Your task to perform on an android device: allow cookies in the chrome app Image 0: 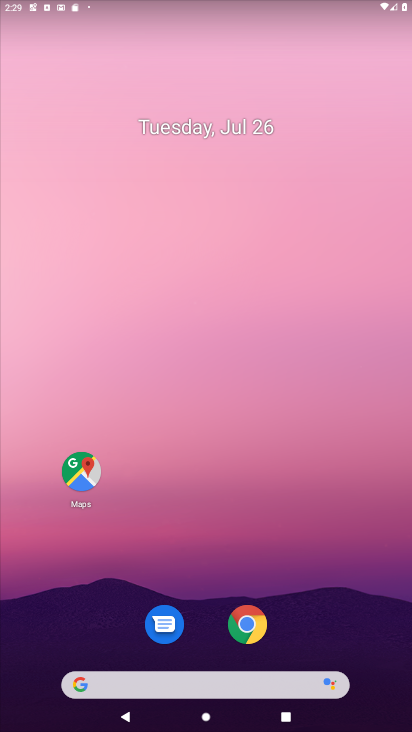
Step 0: click (250, 626)
Your task to perform on an android device: allow cookies in the chrome app Image 1: 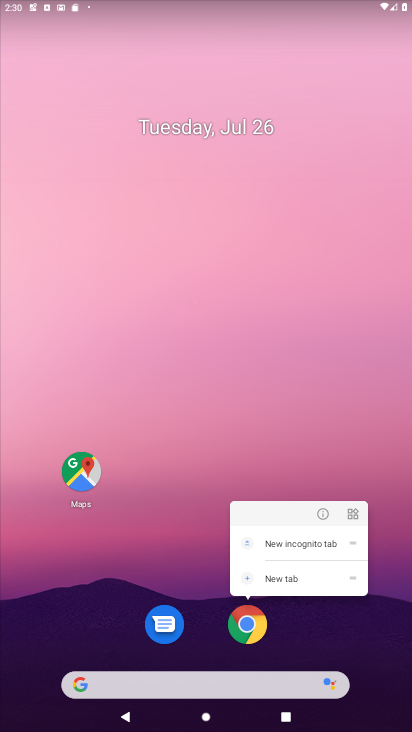
Step 1: click (250, 626)
Your task to perform on an android device: allow cookies in the chrome app Image 2: 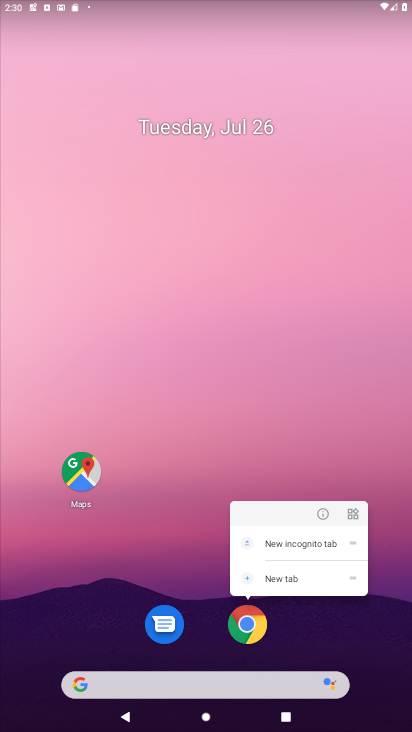
Step 2: click (244, 623)
Your task to perform on an android device: allow cookies in the chrome app Image 3: 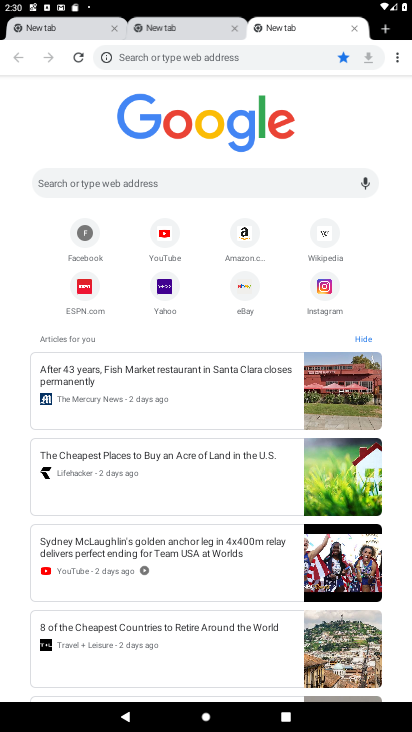
Step 3: click (397, 53)
Your task to perform on an android device: allow cookies in the chrome app Image 4: 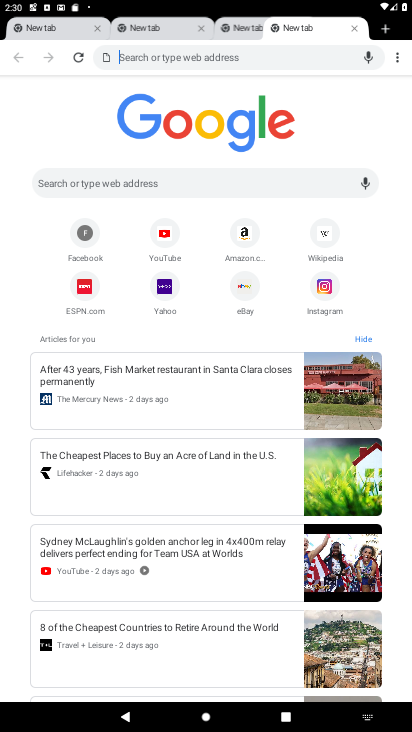
Step 4: click (397, 54)
Your task to perform on an android device: allow cookies in the chrome app Image 5: 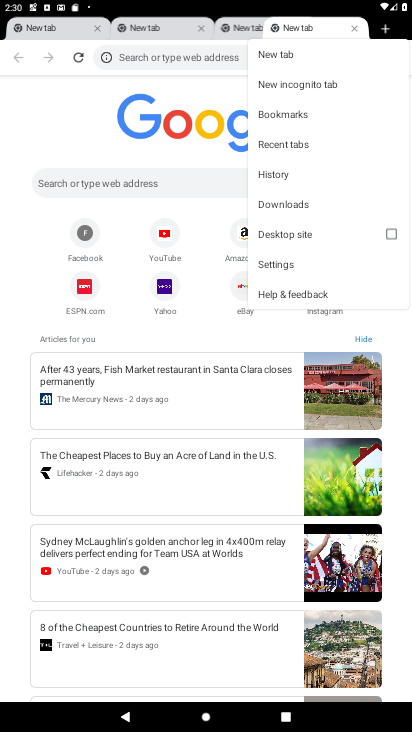
Step 5: click (283, 260)
Your task to perform on an android device: allow cookies in the chrome app Image 6: 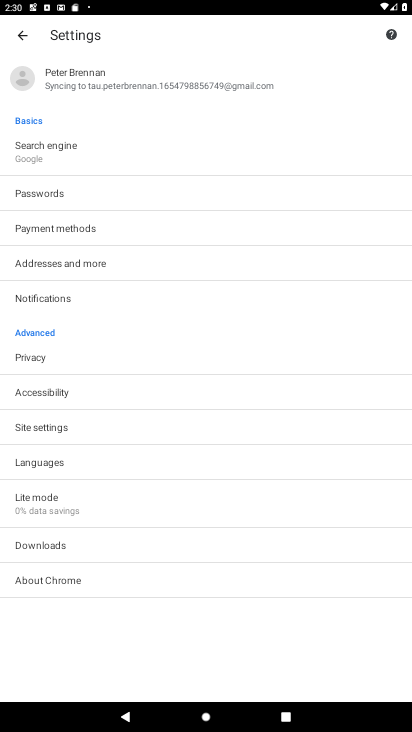
Step 6: click (36, 423)
Your task to perform on an android device: allow cookies in the chrome app Image 7: 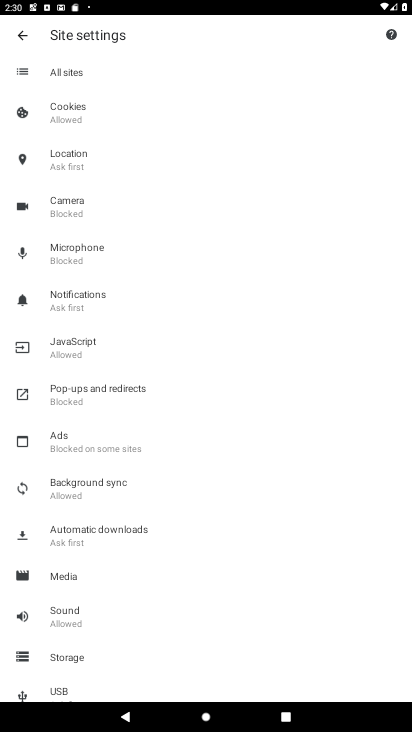
Step 7: click (71, 115)
Your task to perform on an android device: allow cookies in the chrome app Image 8: 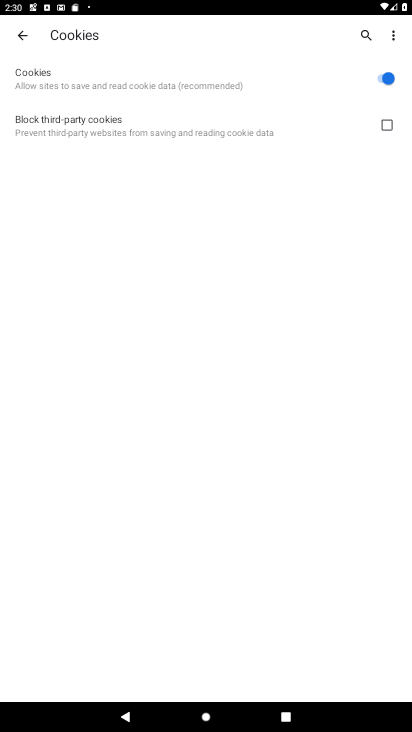
Step 8: task complete